Your task to perform on an android device: Open the stopwatch Image 0: 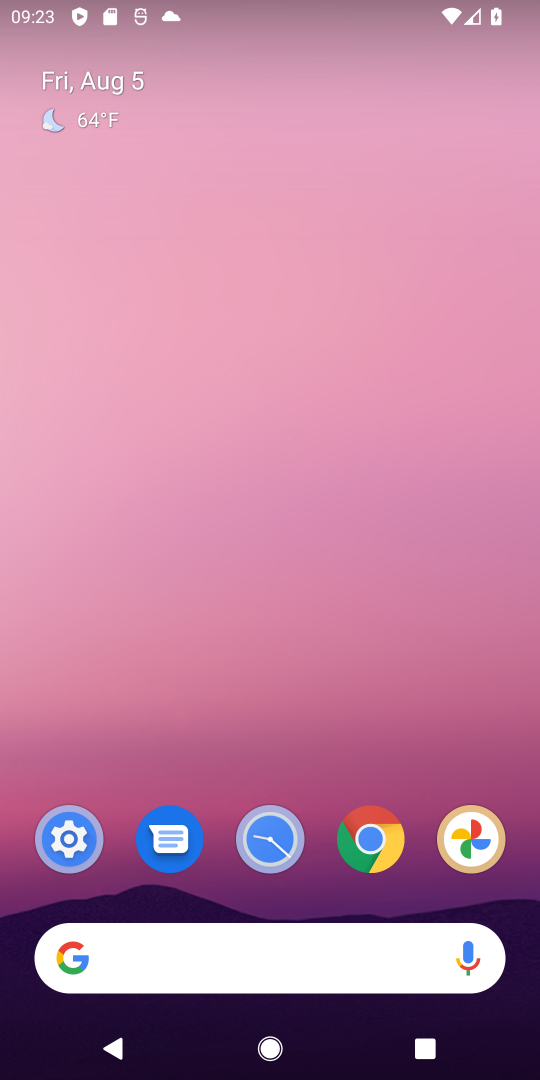
Step 0: drag from (331, 627) to (331, 74)
Your task to perform on an android device: Open the stopwatch Image 1: 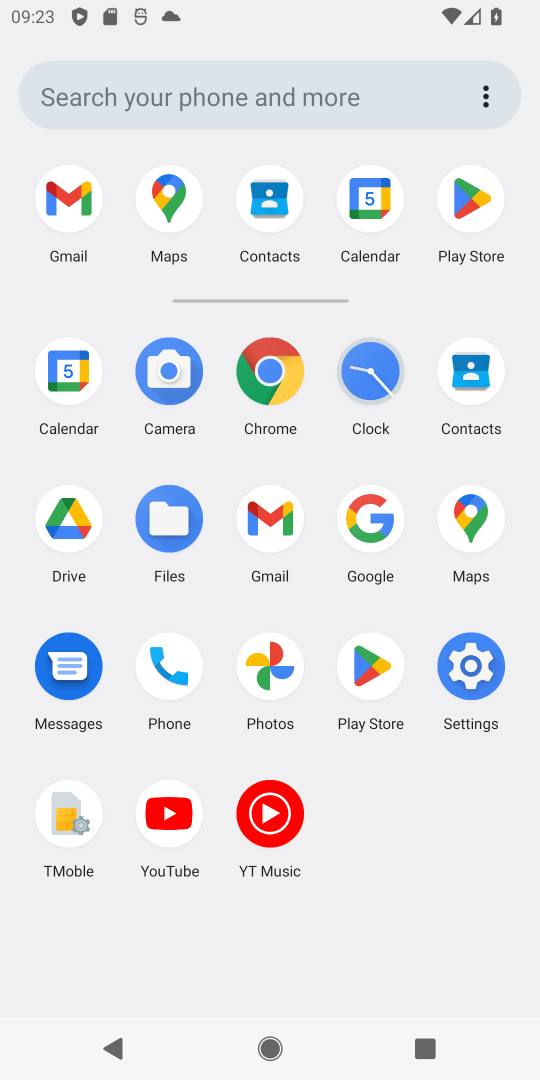
Step 1: click (369, 366)
Your task to perform on an android device: Open the stopwatch Image 2: 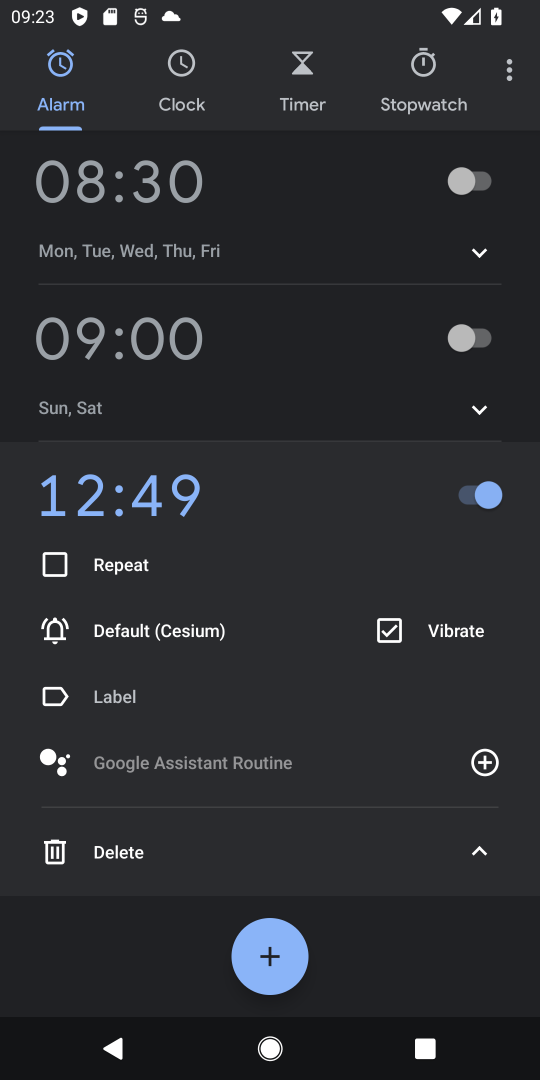
Step 2: click (424, 58)
Your task to perform on an android device: Open the stopwatch Image 3: 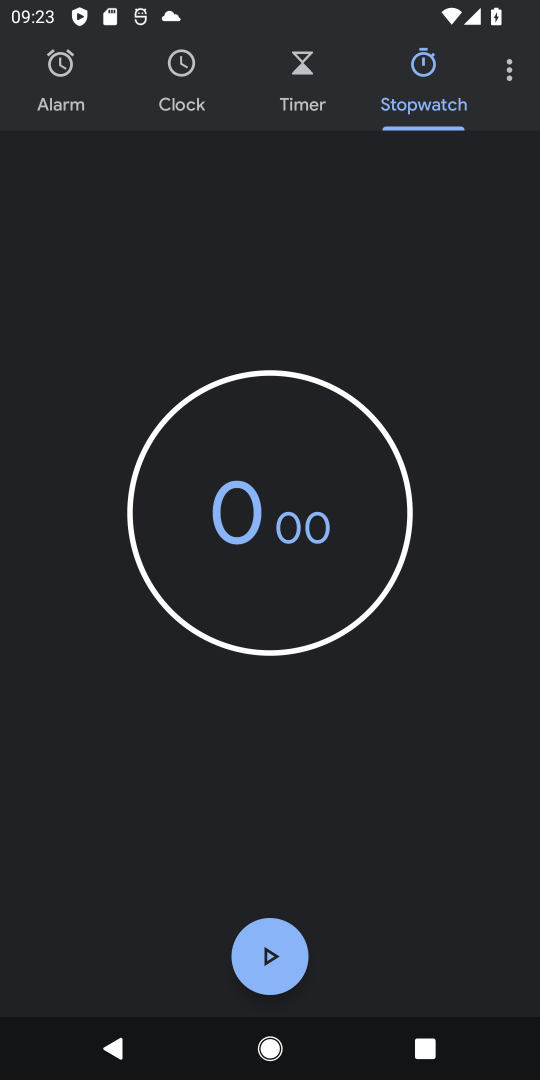
Step 3: task complete